Your task to perform on an android device: Toggle the flashlight Image 0: 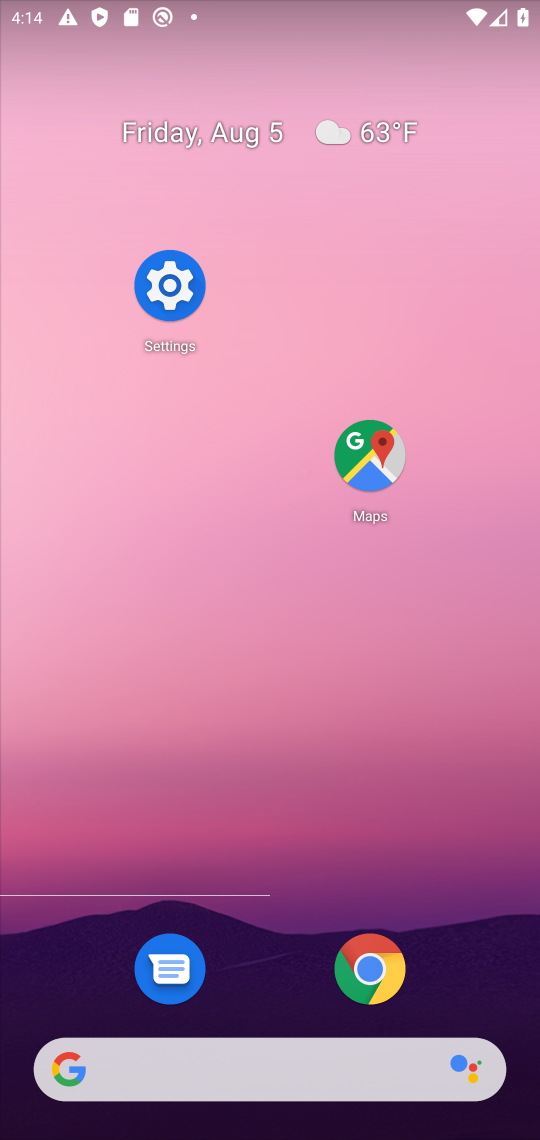
Step 0: drag from (279, 2) to (267, 531)
Your task to perform on an android device: Toggle the flashlight Image 1: 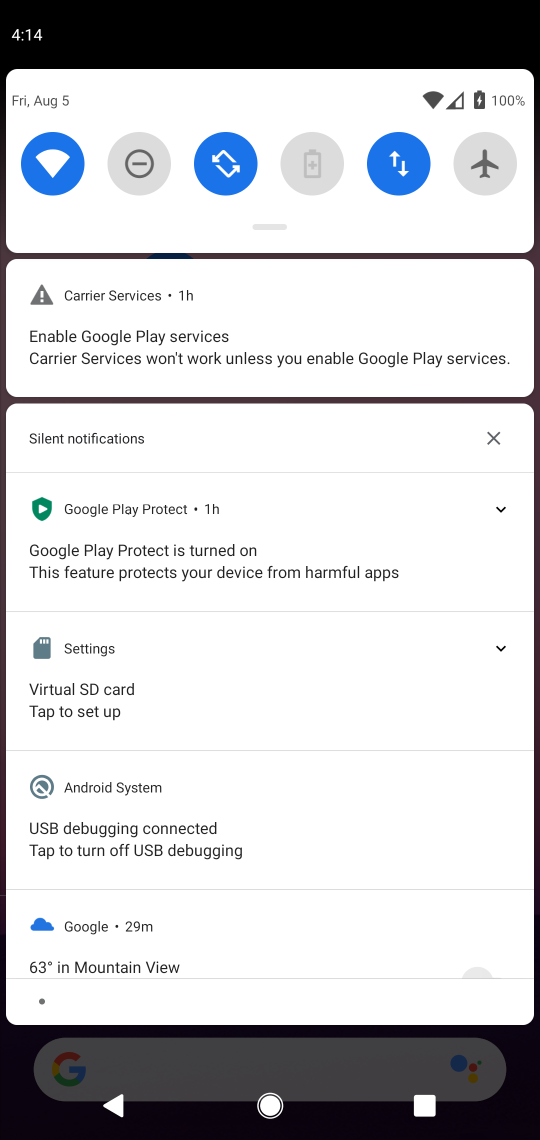
Step 1: task complete